Your task to perform on an android device: Search for pizza restaurants on Maps Image 0: 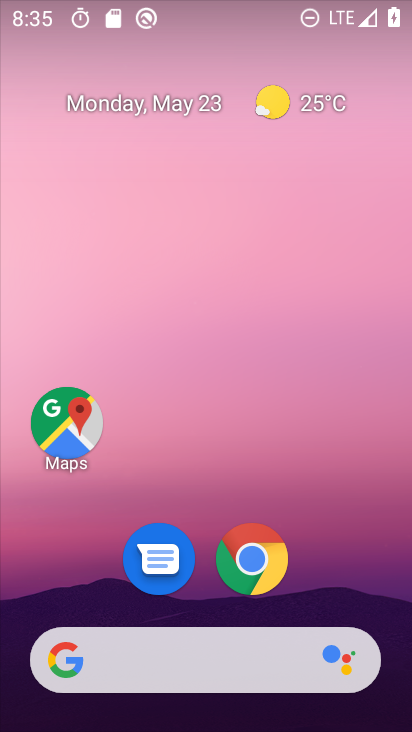
Step 0: drag from (398, 643) to (310, 18)
Your task to perform on an android device: Search for pizza restaurants on Maps Image 1: 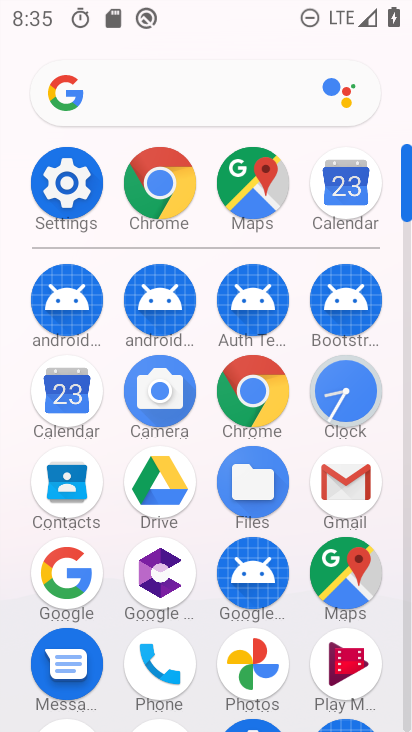
Step 1: click (335, 567)
Your task to perform on an android device: Search for pizza restaurants on Maps Image 2: 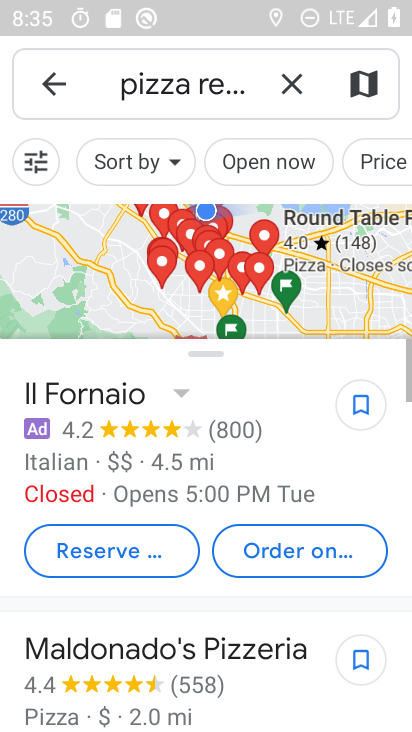
Step 2: task complete